Your task to perform on an android device: clear history in the chrome app Image 0: 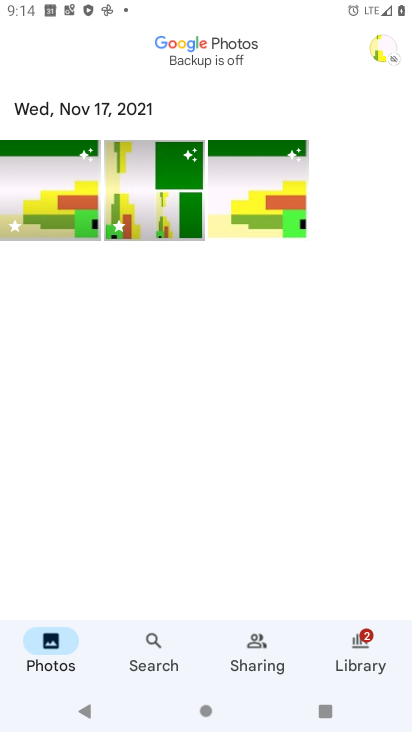
Step 0: press home button
Your task to perform on an android device: clear history in the chrome app Image 1: 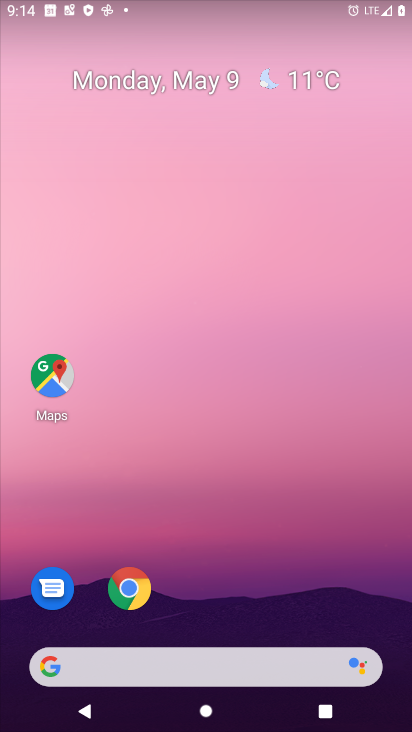
Step 1: drag from (328, 613) to (214, 109)
Your task to perform on an android device: clear history in the chrome app Image 2: 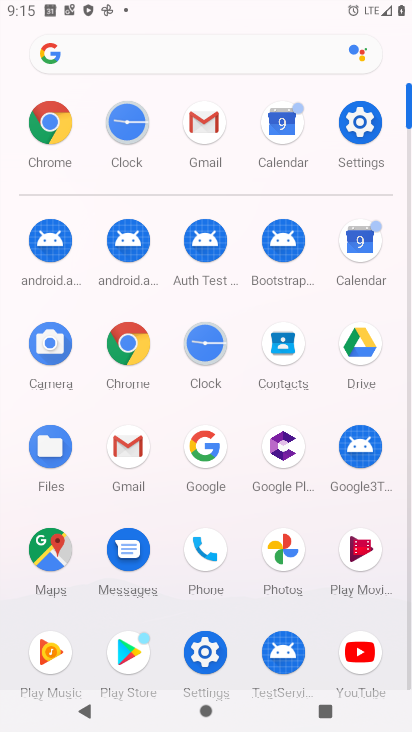
Step 2: click (118, 349)
Your task to perform on an android device: clear history in the chrome app Image 3: 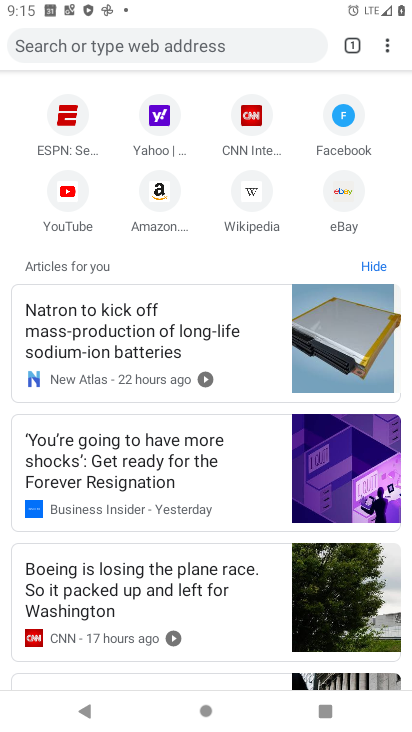
Step 3: click (389, 52)
Your task to perform on an android device: clear history in the chrome app Image 4: 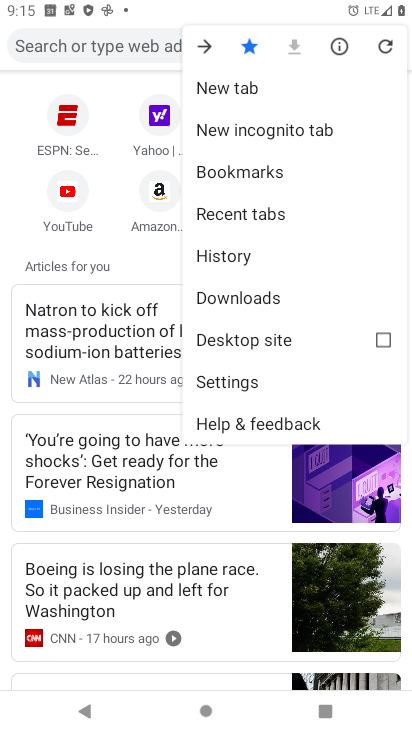
Step 4: click (207, 258)
Your task to perform on an android device: clear history in the chrome app Image 5: 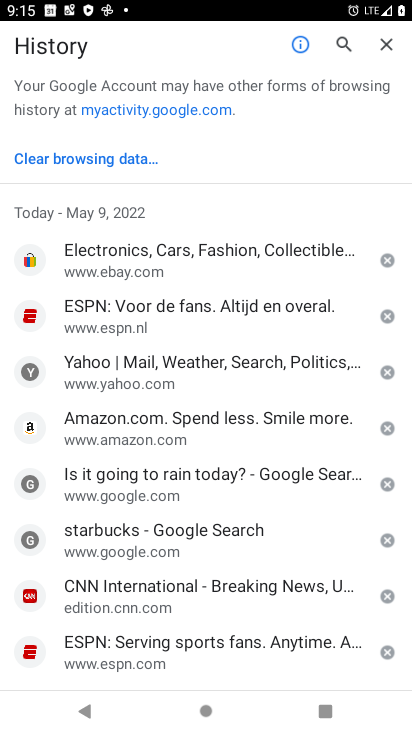
Step 5: click (128, 156)
Your task to perform on an android device: clear history in the chrome app Image 6: 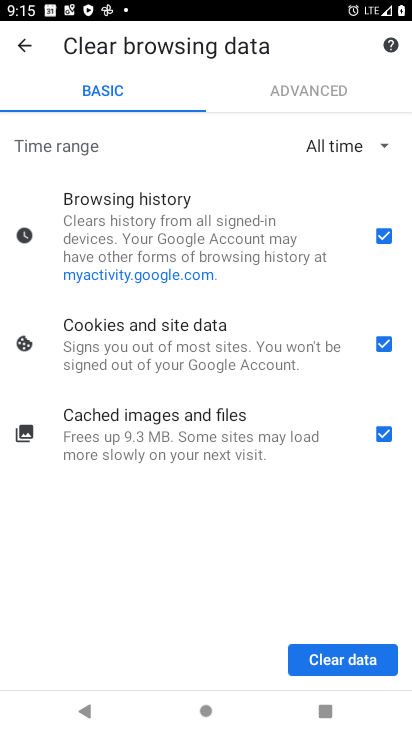
Step 6: click (323, 664)
Your task to perform on an android device: clear history in the chrome app Image 7: 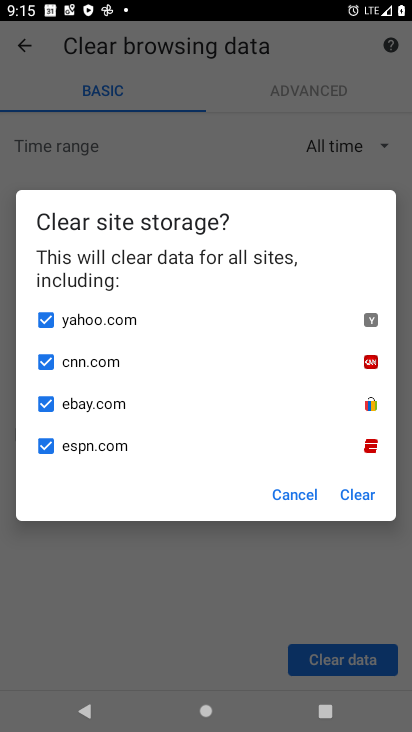
Step 7: click (344, 498)
Your task to perform on an android device: clear history in the chrome app Image 8: 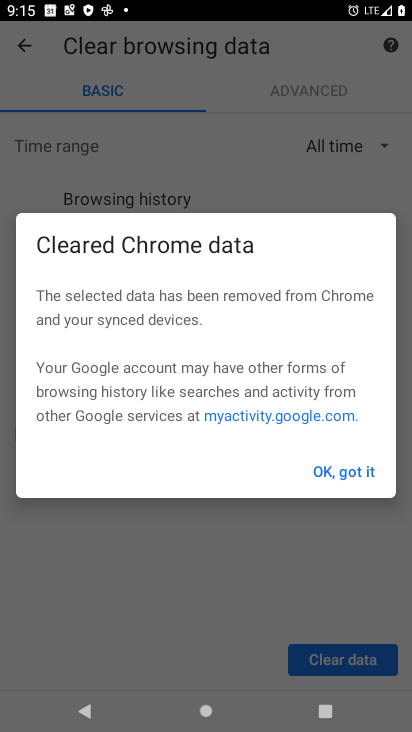
Step 8: click (355, 486)
Your task to perform on an android device: clear history in the chrome app Image 9: 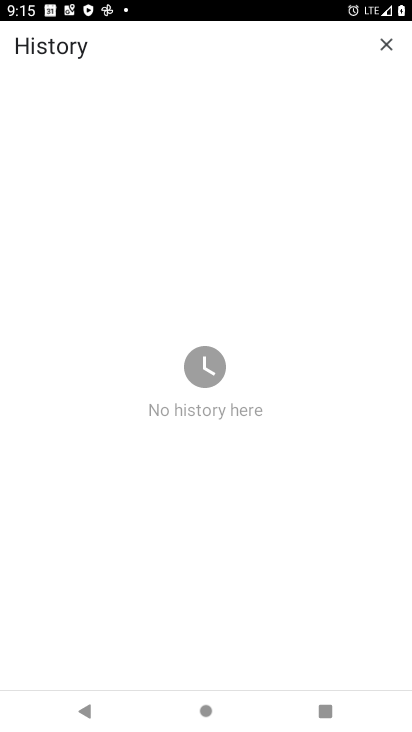
Step 9: task complete